Your task to perform on an android device: change the clock display to analog Image 0: 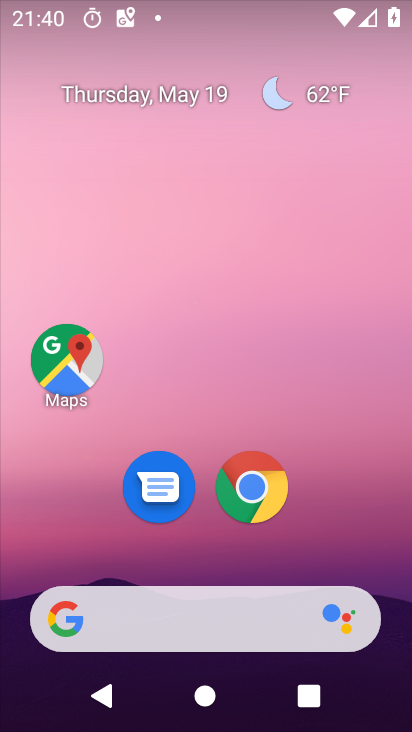
Step 0: drag from (322, 520) to (256, 32)
Your task to perform on an android device: change the clock display to analog Image 1: 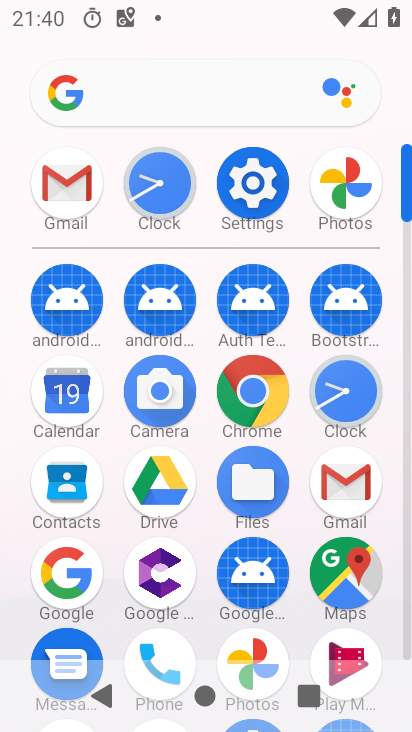
Step 1: click (168, 177)
Your task to perform on an android device: change the clock display to analog Image 2: 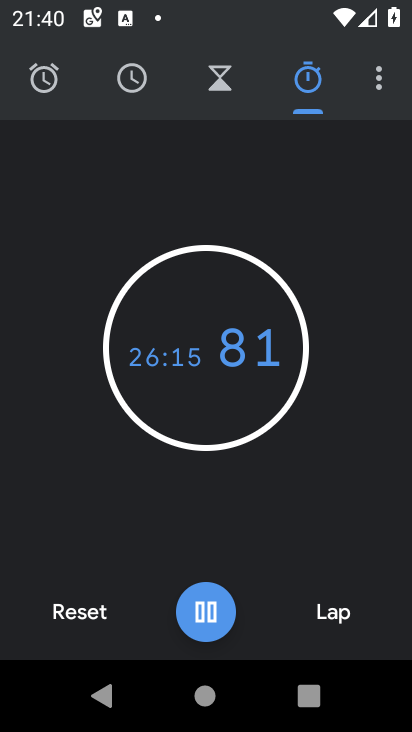
Step 2: click (383, 77)
Your task to perform on an android device: change the clock display to analog Image 3: 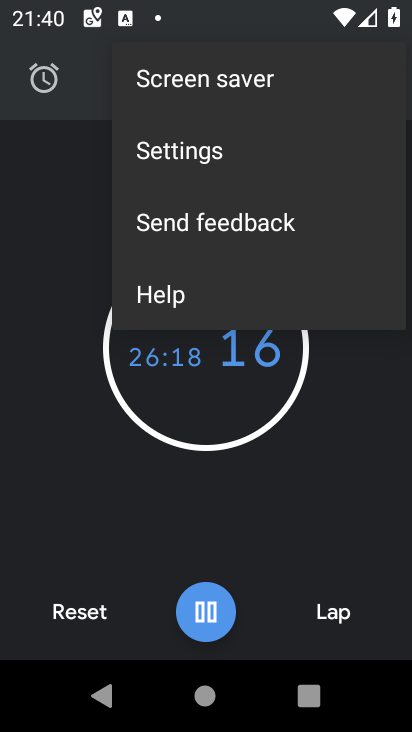
Step 3: click (213, 140)
Your task to perform on an android device: change the clock display to analog Image 4: 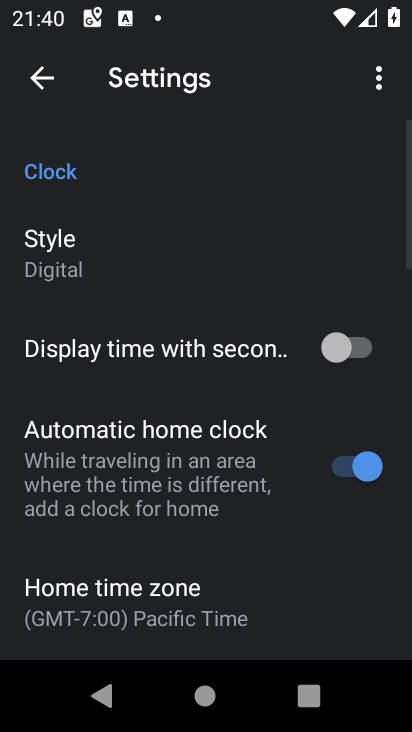
Step 4: click (65, 265)
Your task to perform on an android device: change the clock display to analog Image 5: 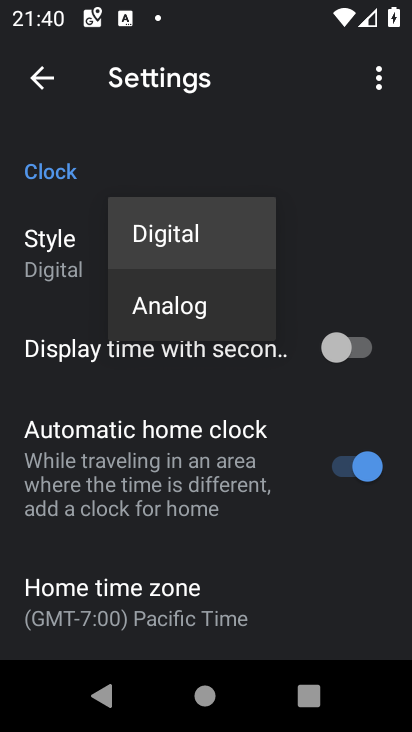
Step 5: click (140, 321)
Your task to perform on an android device: change the clock display to analog Image 6: 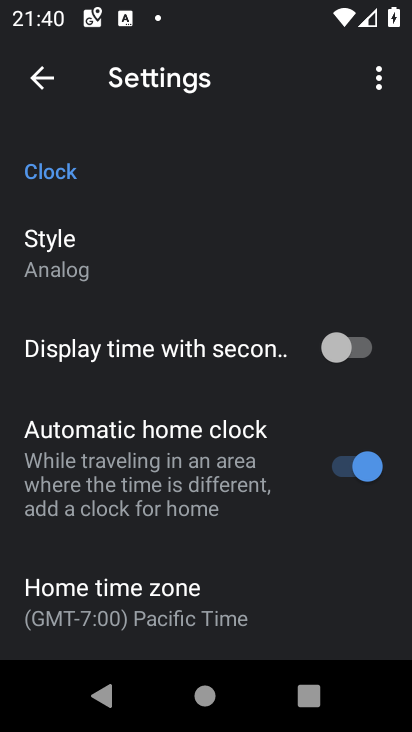
Step 6: task complete